Your task to perform on an android device: install app "Microsoft Excel" Image 0: 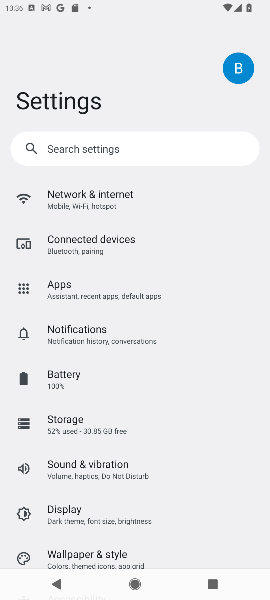
Step 0: press home button
Your task to perform on an android device: install app "Microsoft Excel" Image 1: 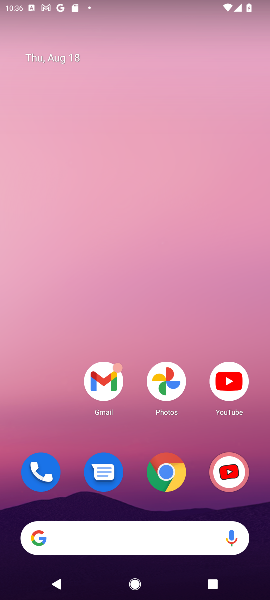
Step 1: drag from (193, 440) to (146, 47)
Your task to perform on an android device: install app "Microsoft Excel" Image 2: 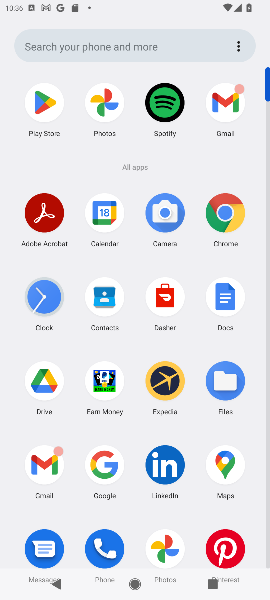
Step 2: drag from (185, 517) to (146, 314)
Your task to perform on an android device: install app "Microsoft Excel" Image 3: 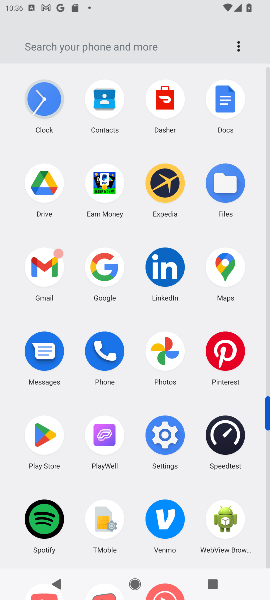
Step 3: drag from (200, 487) to (160, 282)
Your task to perform on an android device: install app "Microsoft Excel" Image 4: 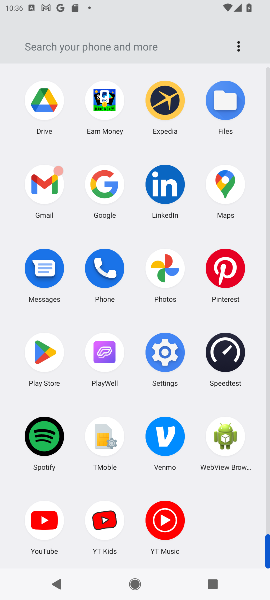
Step 4: click (45, 348)
Your task to perform on an android device: install app "Microsoft Excel" Image 5: 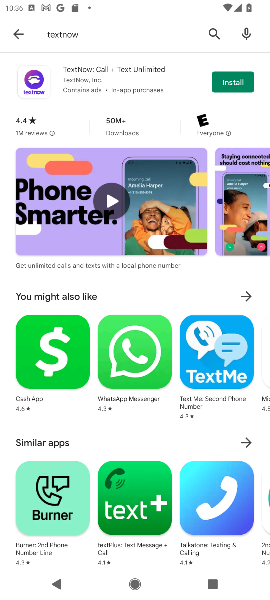
Step 5: click (213, 36)
Your task to perform on an android device: install app "Microsoft Excel" Image 6: 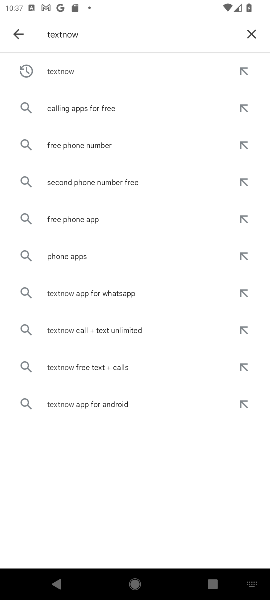
Step 6: click (250, 33)
Your task to perform on an android device: install app "Microsoft Excel" Image 7: 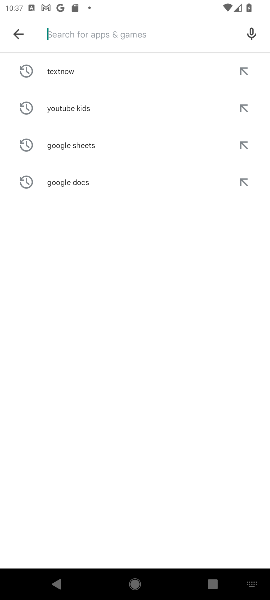
Step 7: type "microsoft excel"
Your task to perform on an android device: install app "Microsoft Excel" Image 8: 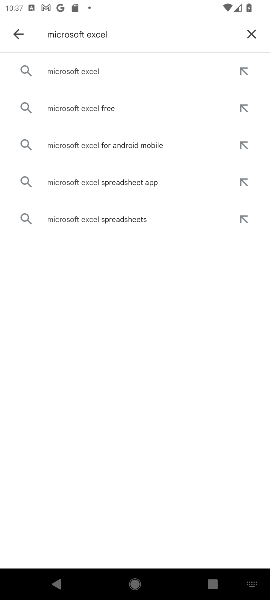
Step 8: click (111, 74)
Your task to perform on an android device: install app "Microsoft Excel" Image 9: 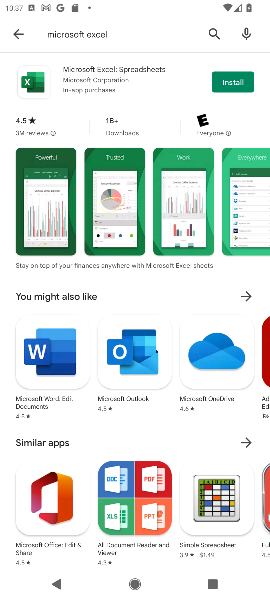
Step 9: click (231, 86)
Your task to perform on an android device: install app "Microsoft Excel" Image 10: 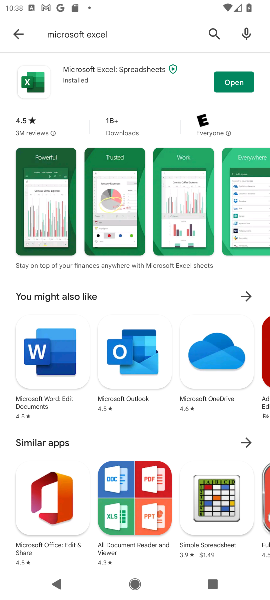
Step 10: task complete